Your task to perform on an android device: Open eBay Image 0: 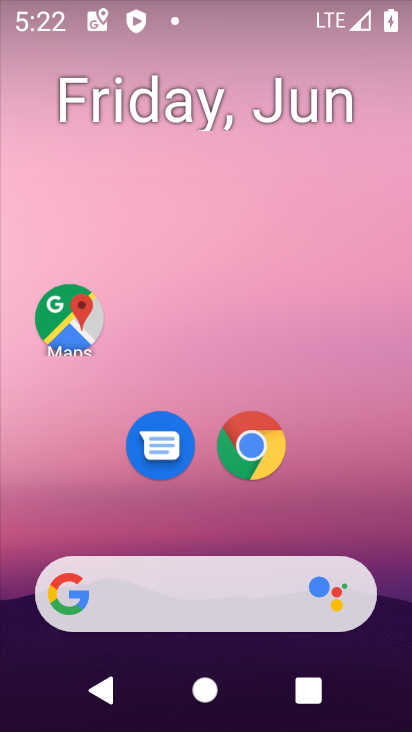
Step 0: drag from (402, 637) to (328, 7)
Your task to perform on an android device: Open eBay Image 1: 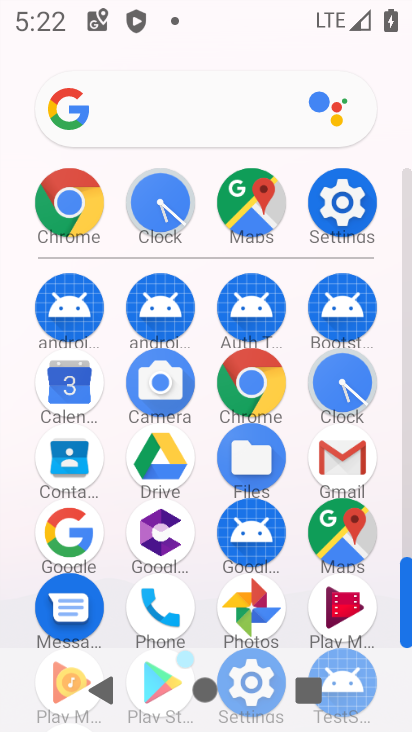
Step 1: click (65, 198)
Your task to perform on an android device: Open eBay Image 2: 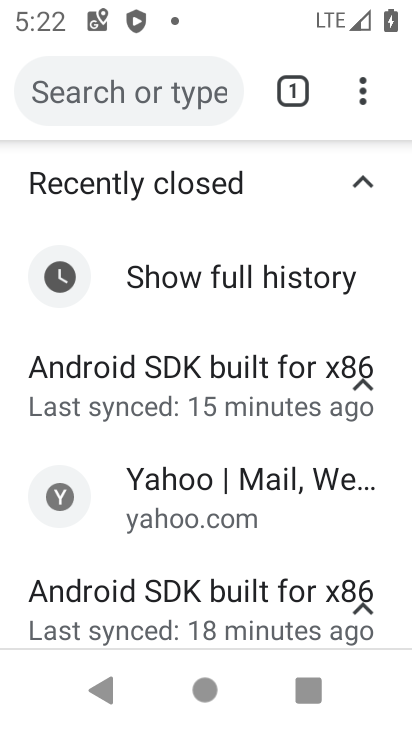
Step 2: click (133, 91)
Your task to perform on an android device: Open eBay Image 3: 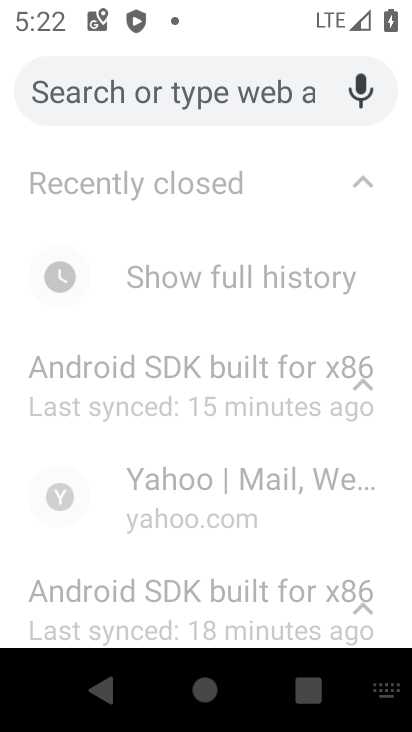
Step 3: type "eBay"
Your task to perform on an android device: Open eBay Image 4: 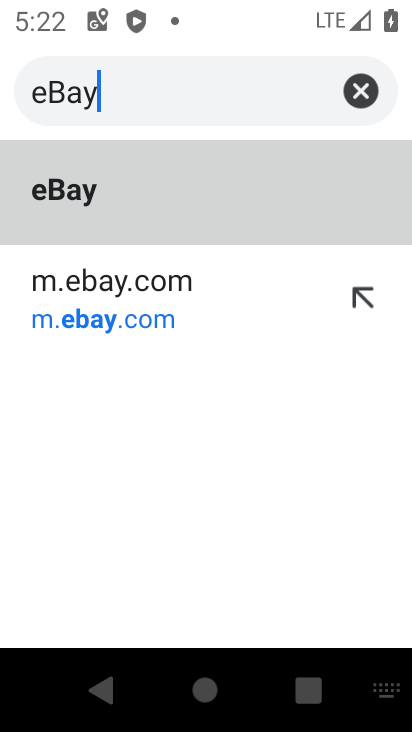
Step 4: type ""
Your task to perform on an android device: Open eBay Image 5: 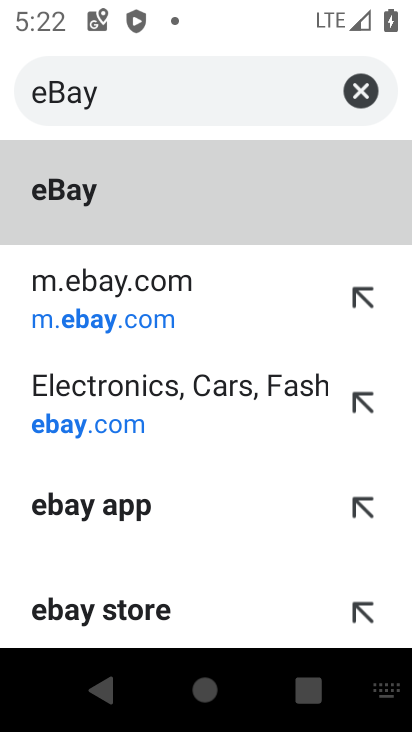
Step 5: click (93, 288)
Your task to perform on an android device: Open eBay Image 6: 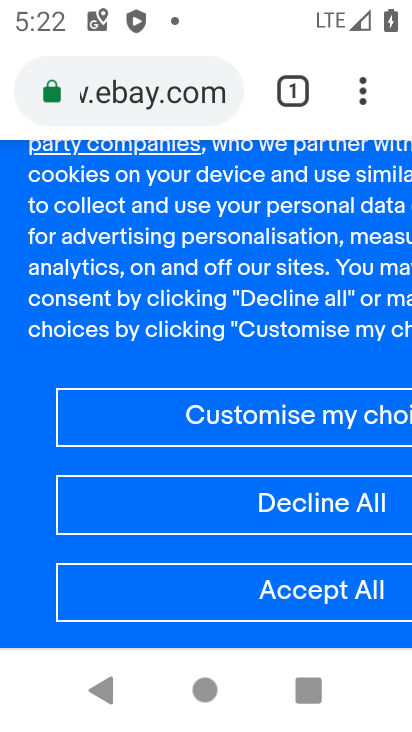
Step 6: task complete